Your task to perform on an android device: turn notification dots on Image 0: 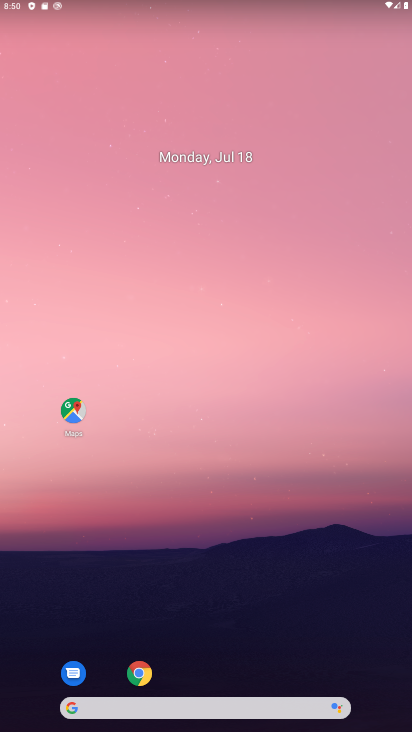
Step 0: drag from (178, 665) to (261, 160)
Your task to perform on an android device: turn notification dots on Image 1: 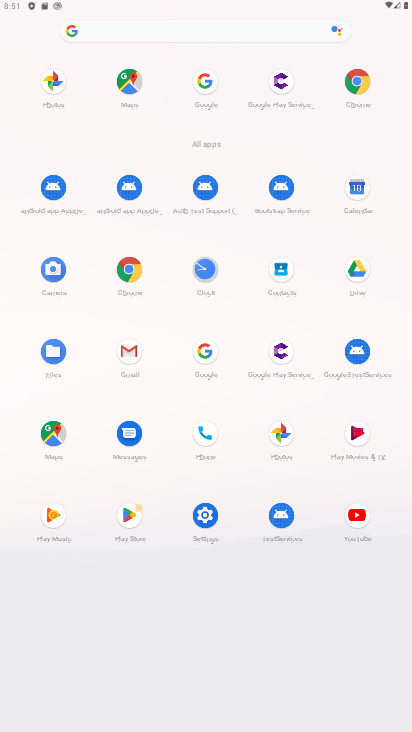
Step 1: click (211, 518)
Your task to perform on an android device: turn notification dots on Image 2: 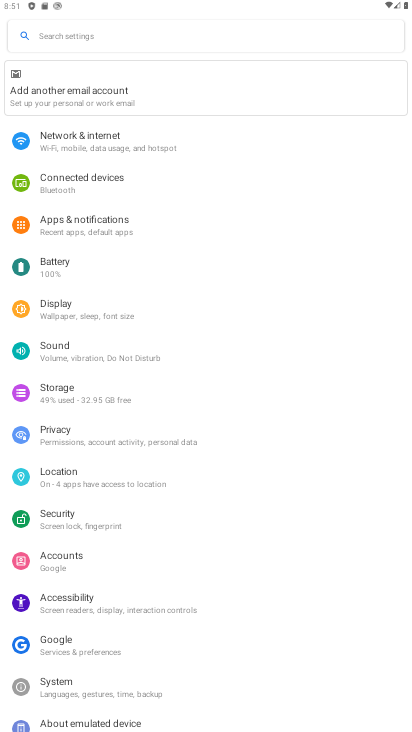
Step 2: click (137, 229)
Your task to perform on an android device: turn notification dots on Image 3: 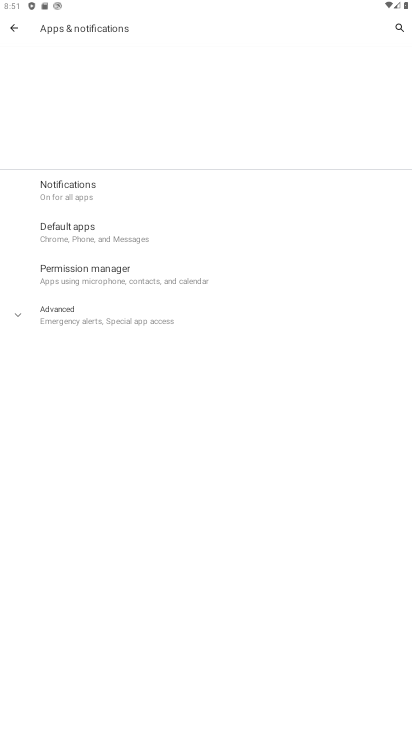
Step 3: click (141, 203)
Your task to perform on an android device: turn notification dots on Image 4: 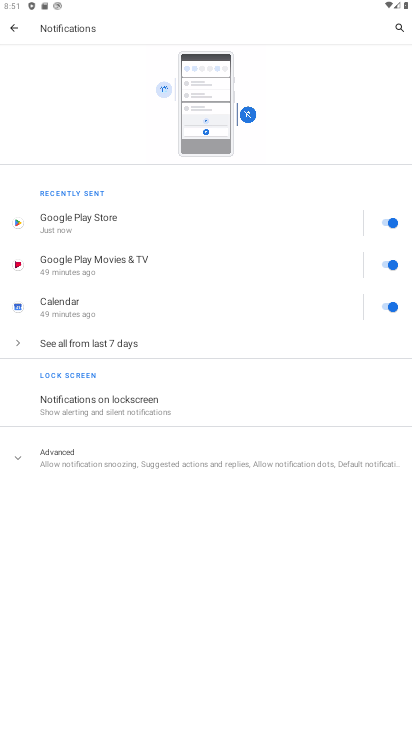
Step 4: click (88, 458)
Your task to perform on an android device: turn notification dots on Image 5: 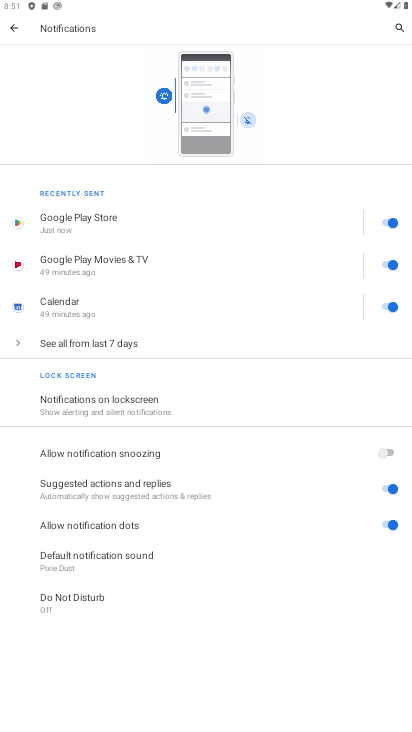
Step 5: task complete